Your task to perform on an android device: When is my next meeting? Image 0: 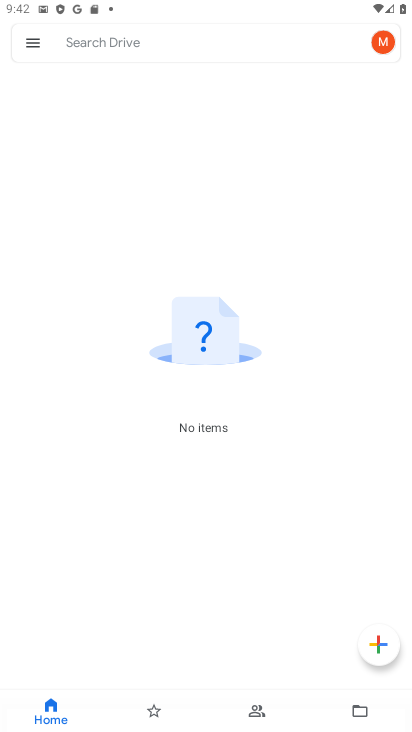
Step 0: press home button
Your task to perform on an android device: When is my next meeting? Image 1: 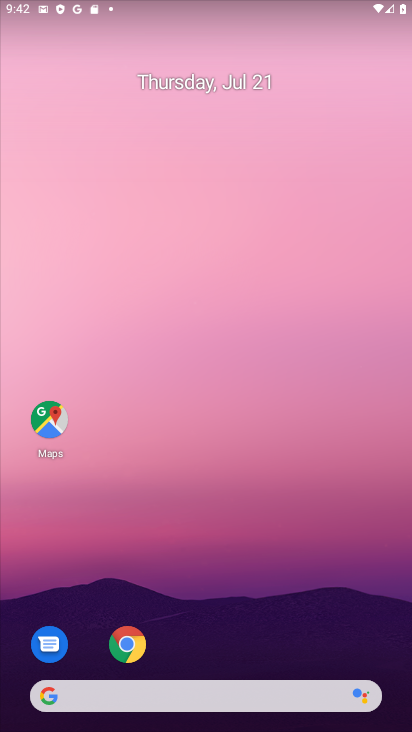
Step 1: drag from (210, 658) to (185, 1)
Your task to perform on an android device: When is my next meeting? Image 2: 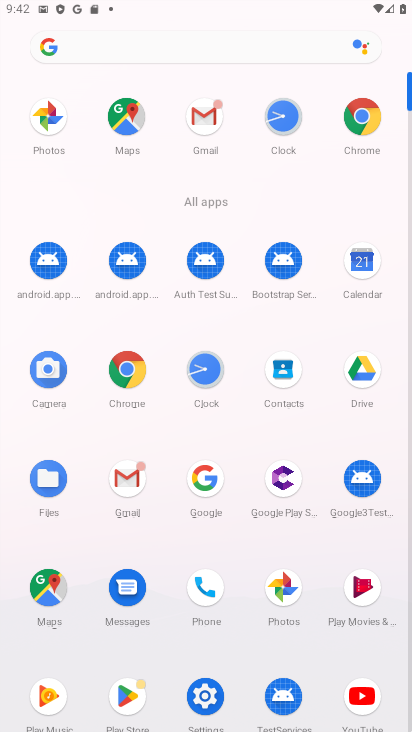
Step 2: click (358, 257)
Your task to perform on an android device: When is my next meeting? Image 3: 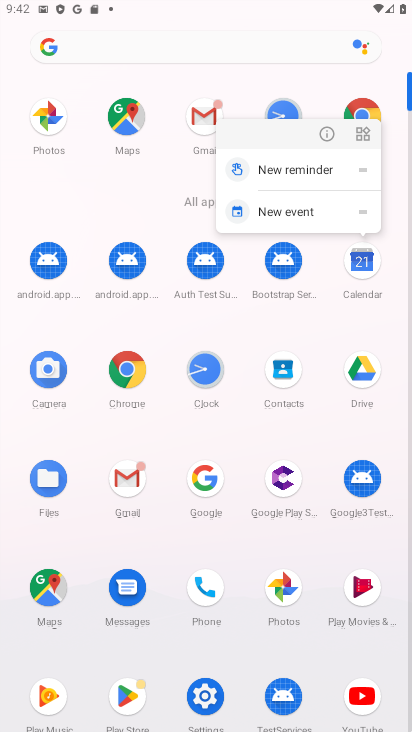
Step 3: click (360, 261)
Your task to perform on an android device: When is my next meeting? Image 4: 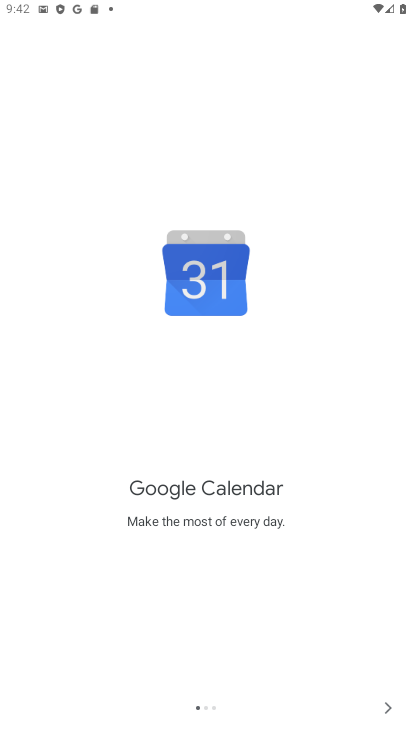
Step 4: click (387, 706)
Your task to perform on an android device: When is my next meeting? Image 5: 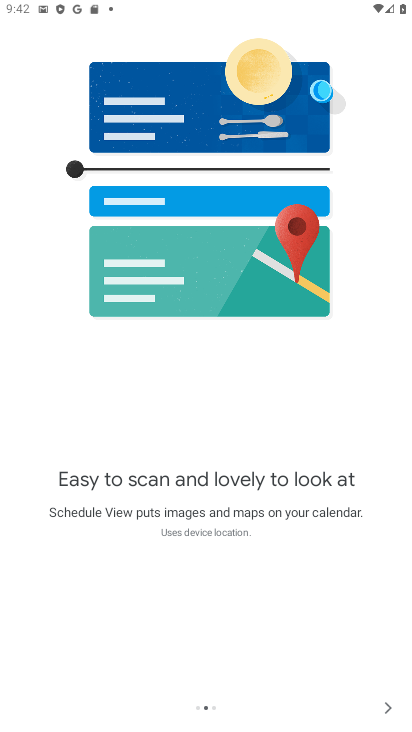
Step 5: click (387, 706)
Your task to perform on an android device: When is my next meeting? Image 6: 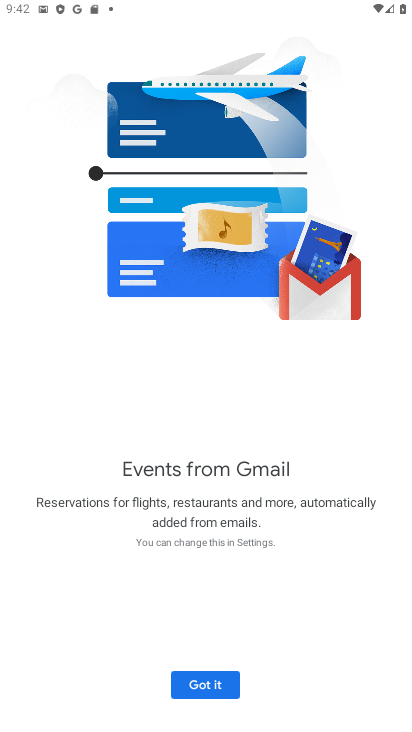
Step 6: click (209, 682)
Your task to perform on an android device: When is my next meeting? Image 7: 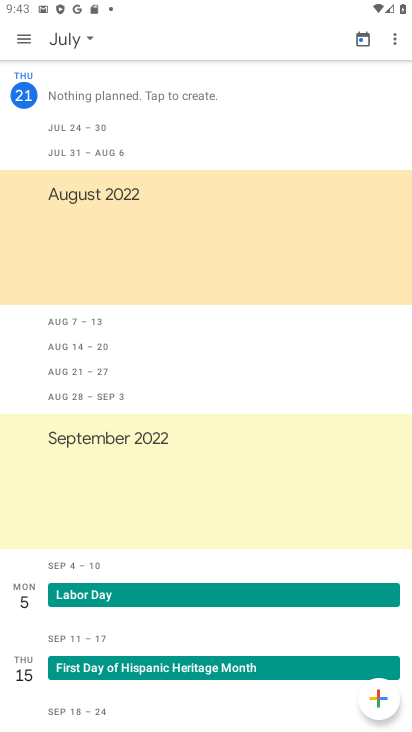
Step 7: task complete